Your task to perform on an android device: check battery use Image 0: 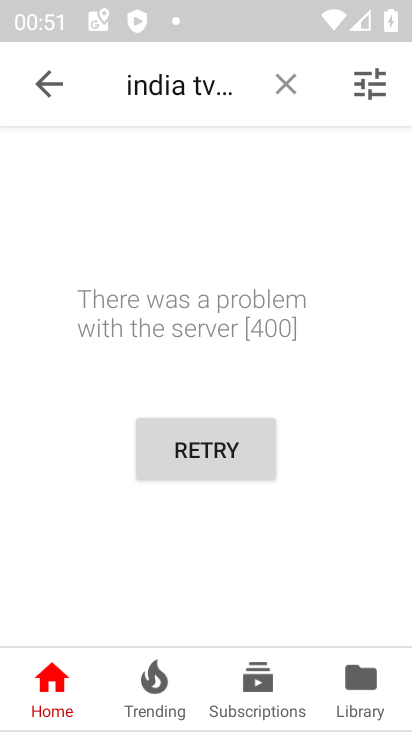
Step 0: press home button
Your task to perform on an android device: check battery use Image 1: 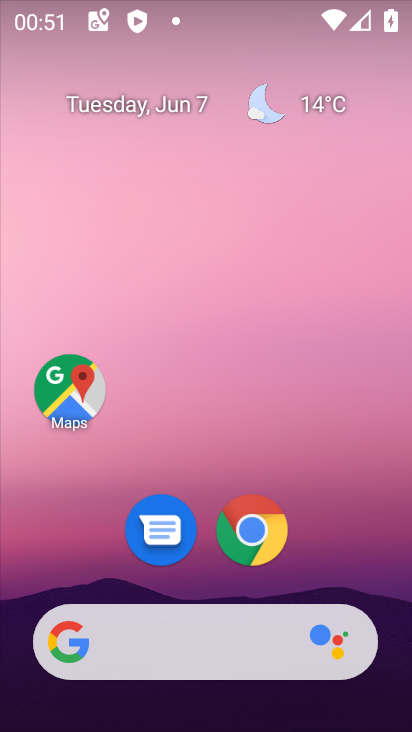
Step 1: drag from (294, 564) to (287, 195)
Your task to perform on an android device: check battery use Image 2: 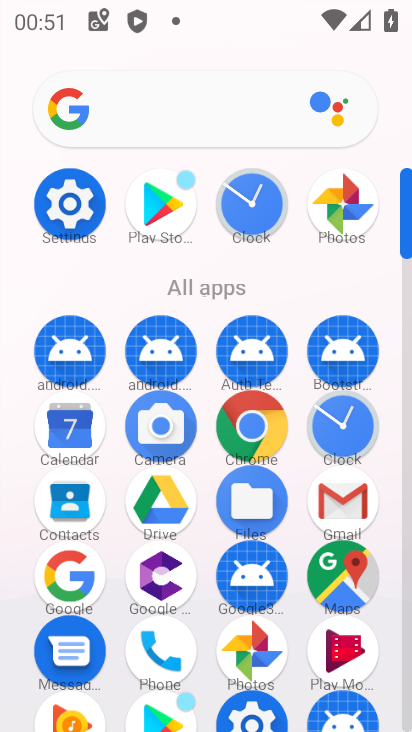
Step 2: click (79, 192)
Your task to perform on an android device: check battery use Image 3: 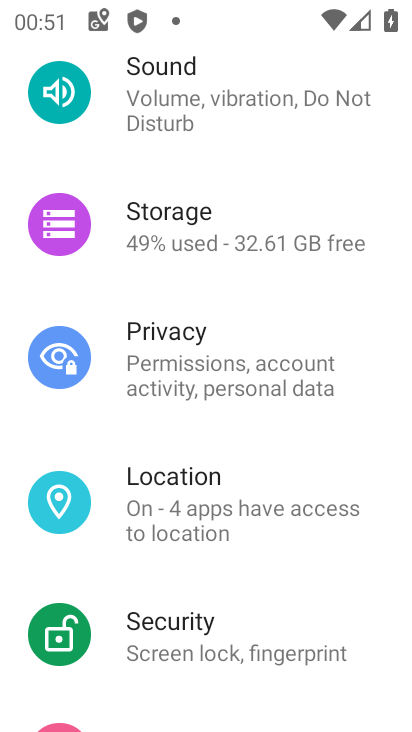
Step 3: drag from (212, 164) to (228, 608)
Your task to perform on an android device: check battery use Image 4: 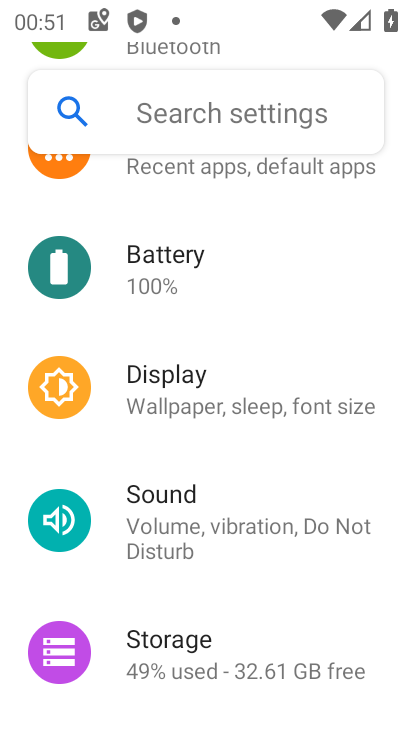
Step 4: click (180, 259)
Your task to perform on an android device: check battery use Image 5: 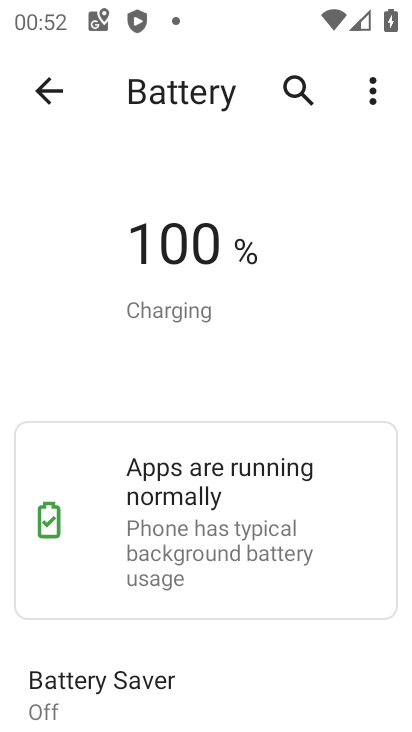
Step 5: task complete